Your task to perform on an android device: Is it going to rain this weekend? Image 0: 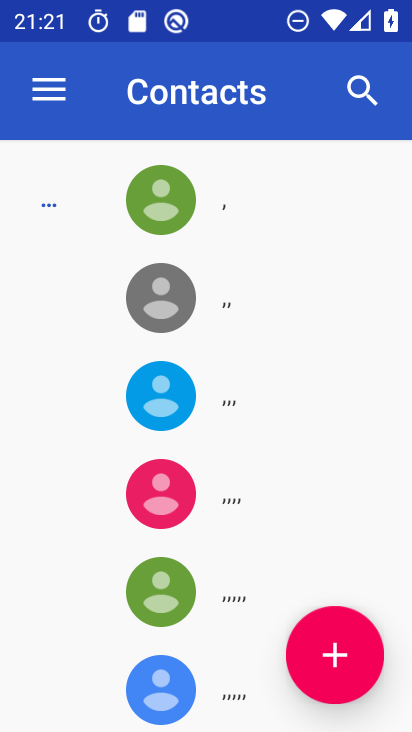
Step 0: press home button
Your task to perform on an android device: Is it going to rain this weekend? Image 1: 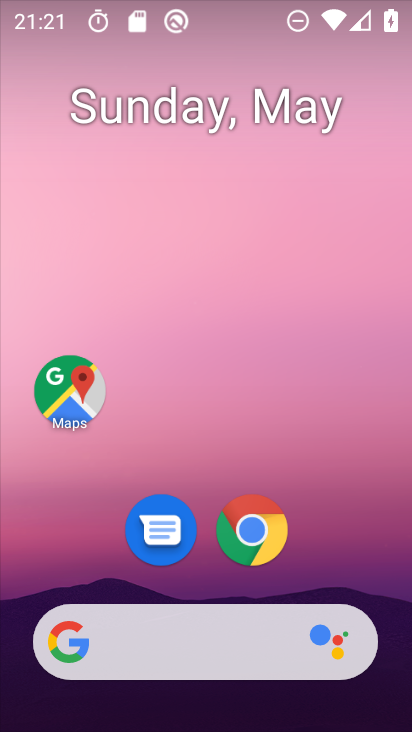
Step 1: drag from (222, 676) to (216, 284)
Your task to perform on an android device: Is it going to rain this weekend? Image 2: 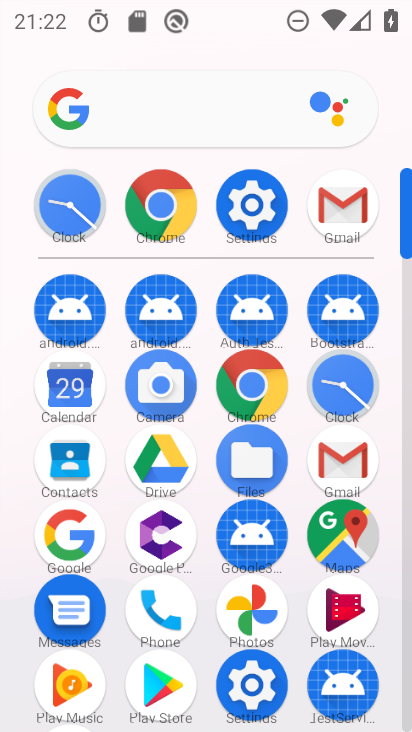
Step 2: click (159, 117)
Your task to perform on an android device: Is it going to rain this weekend? Image 3: 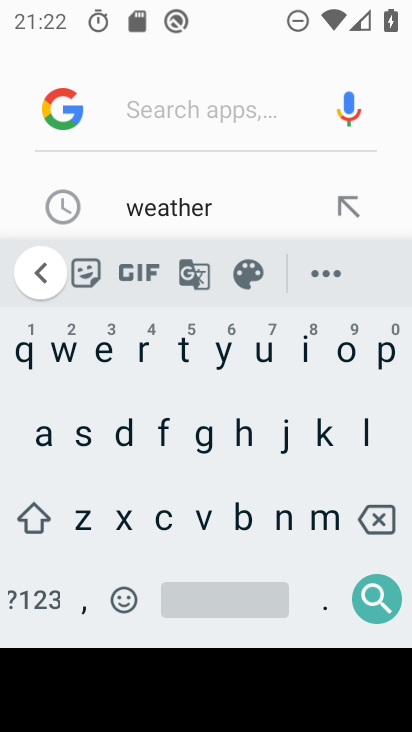
Step 3: click (142, 354)
Your task to perform on an android device: Is it going to rain this weekend? Image 4: 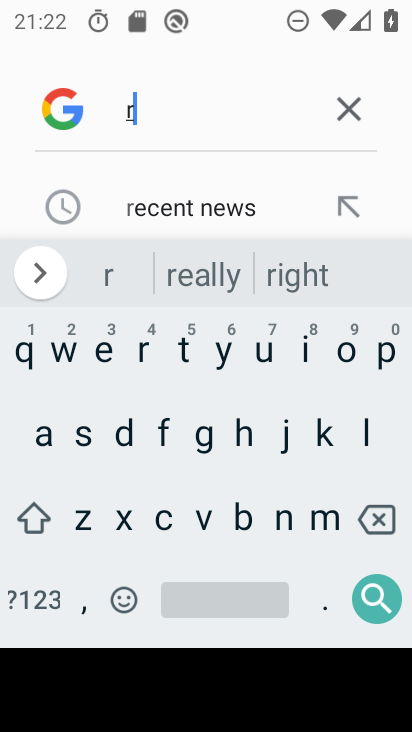
Step 4: click (38, 437)
Your task to perform on an android device: Is it going to rain this weekend? Image 5: 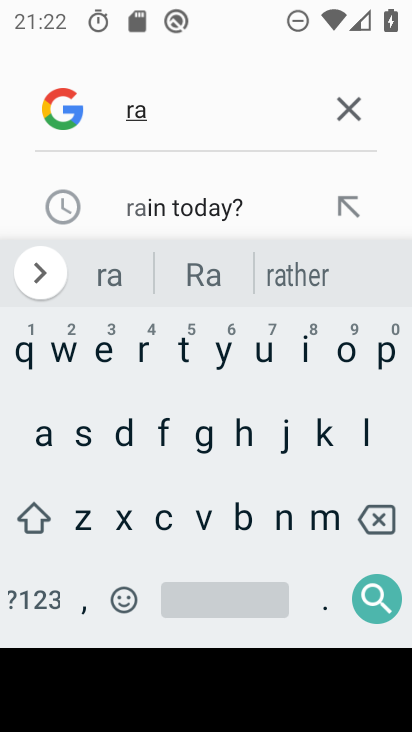
Step 5: click (377, 513)
Your task to perform on an android device: Is it going to rain this weekend? Image 6: 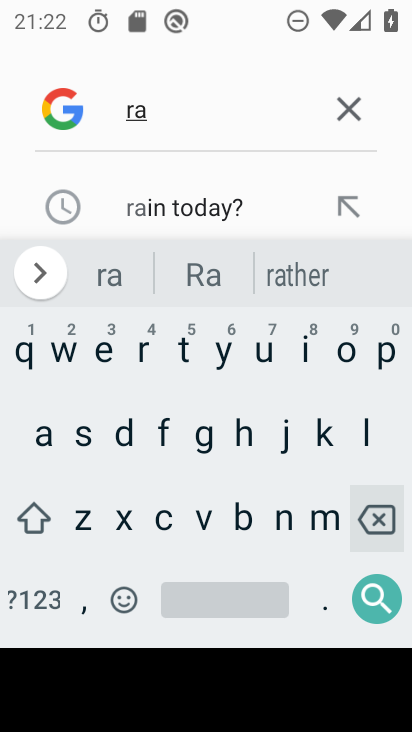
Step 6: click (377, 513)
Your task to perform on an android device: Is it going to rain this weekend? Image 7: 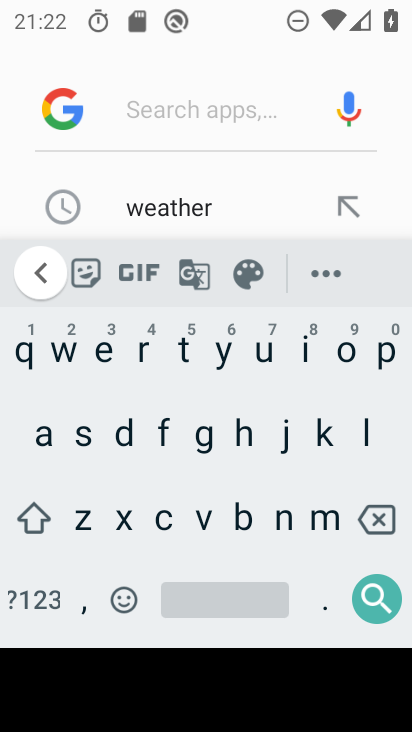
Step 7: click (167, 203)
Your task to perform on an android device: Is it going to rain this weekend? Image 8: 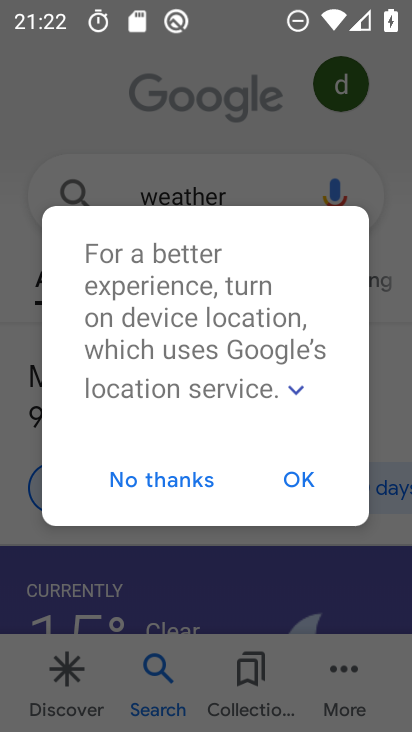
Step 8: click (142, 477)
Your task to perform on an android device: Is it going to rain this weekend? Image 9: 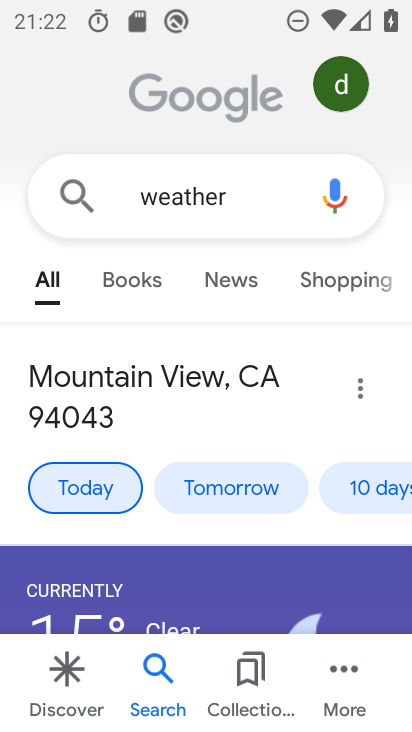
Step 9: task complete